Your task to perform on an android device: Open Wikipedia Image 0: 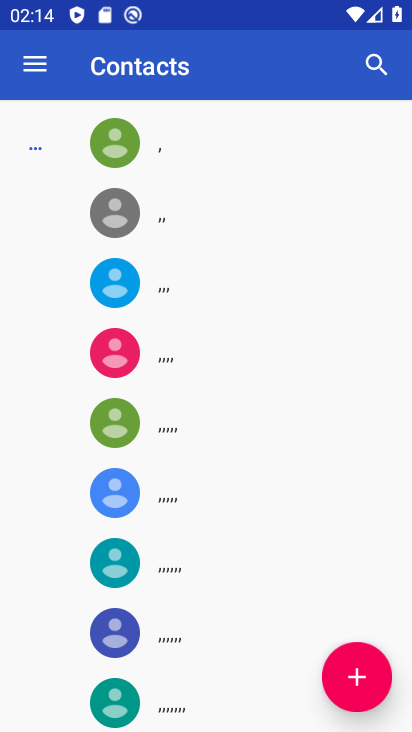
Step 0: press home button
Your task to perform on an android device: Open Wikipedia Image 1: 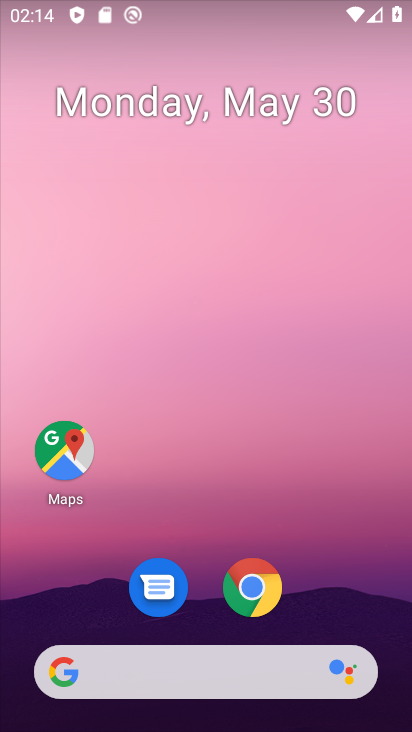
Step 1: click (244, 572)
Your task to perform on an android device: Open Wikipedia Image 2: 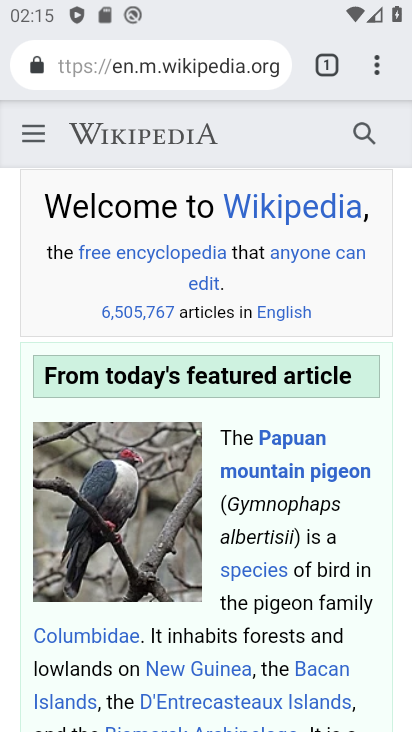
Step 2: task complete